Your task to perform on an android device: change the upload size in google photos Image 0: 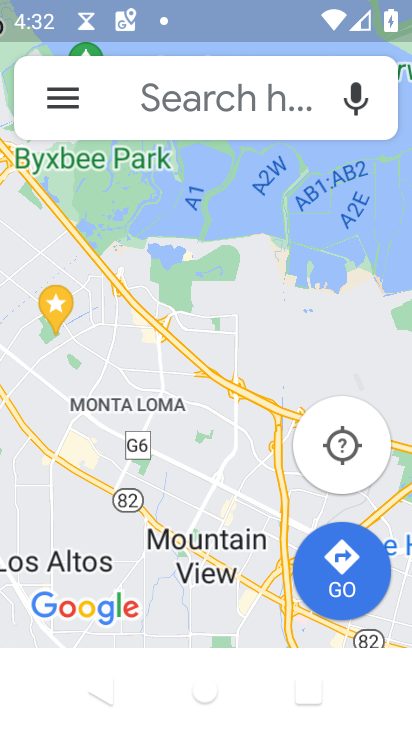
Step 0: click (76, 88)
Your task to perform on an android device: change the upload size in google photos Image 1: 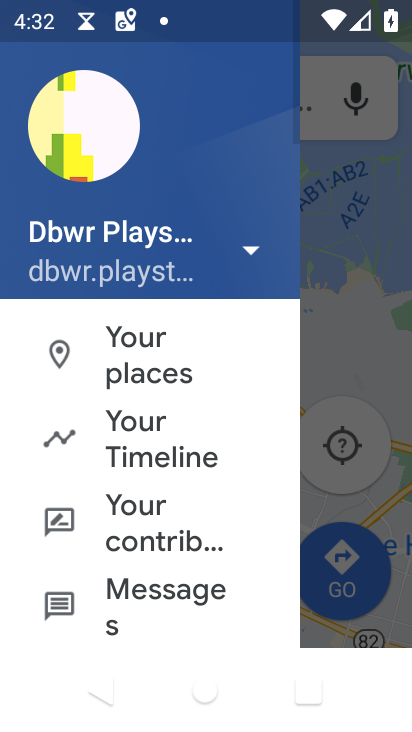
Step 1: press home button
Your task to perform on an android device: change the upload size in google photos Image 2: 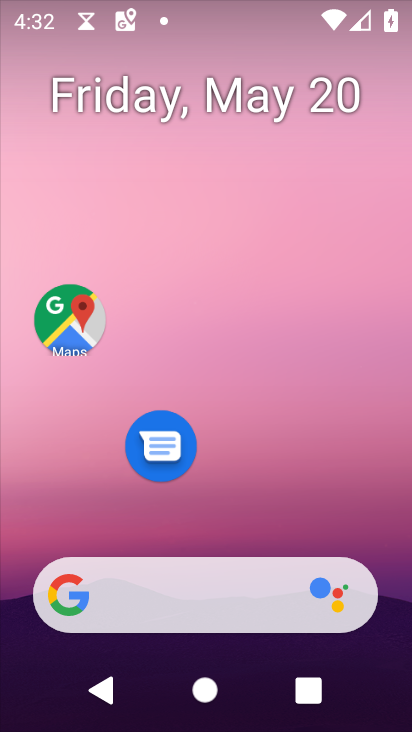
Step 2: drag from (268, 533) to (270, 8)
Your task to perform on an android device: change the upload size in google photos Image 3: 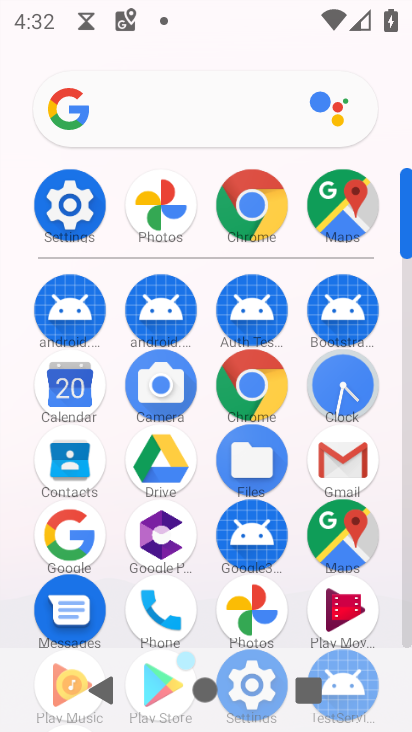
Step 3: click (251, 611)
Your task to perform on an android device: change the upload size in google photos Image 4: 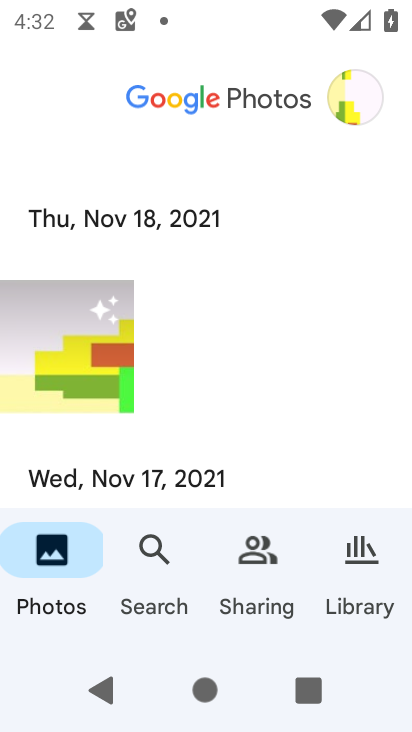
Step 4: click (361, 80)
Your task to perform on an android device: change the upload size in google photos Image 5: 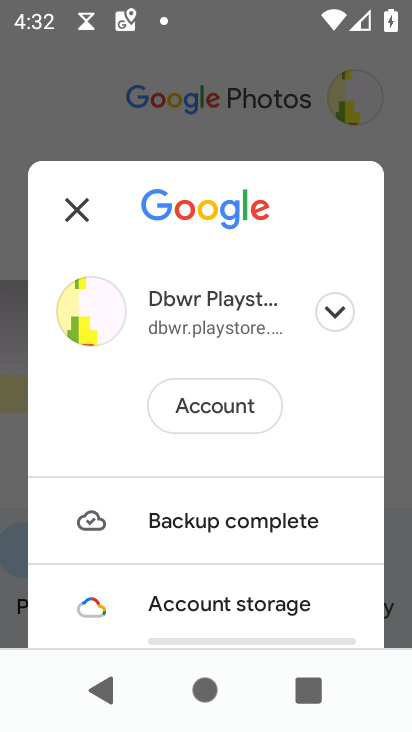
Step 5: drag from (222, 534) to (284, 82)
Your task to perform on an android device: change the upload size in google photos Image 6: 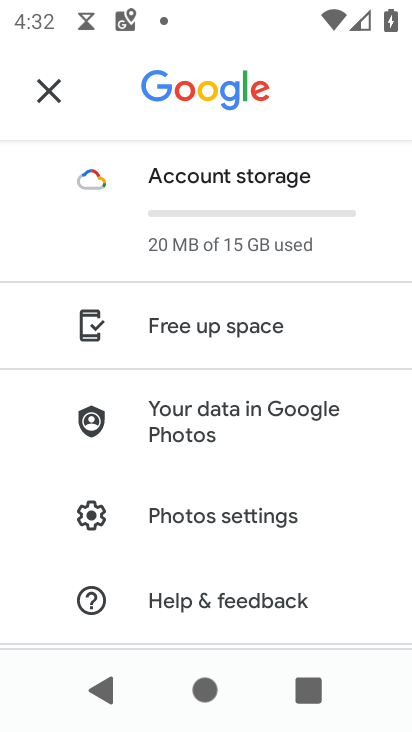
Step 6: click (258, 534)
Your task to perform on an android device: change the upload size in google photos Image 7: 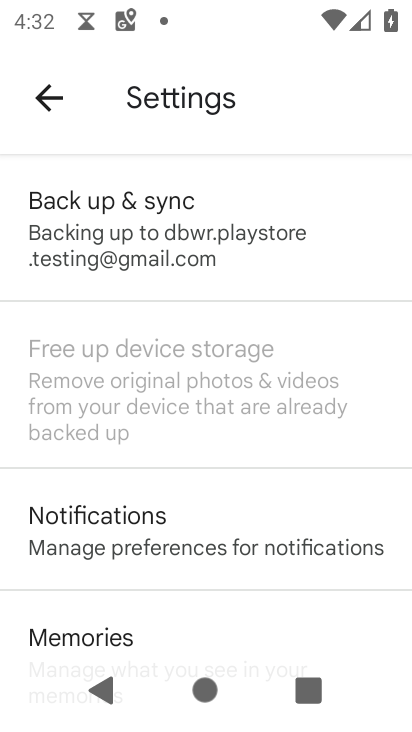
Step 7: click (128, 235)
Your task to perform on an android device: change the upload size in google photos Image 8: 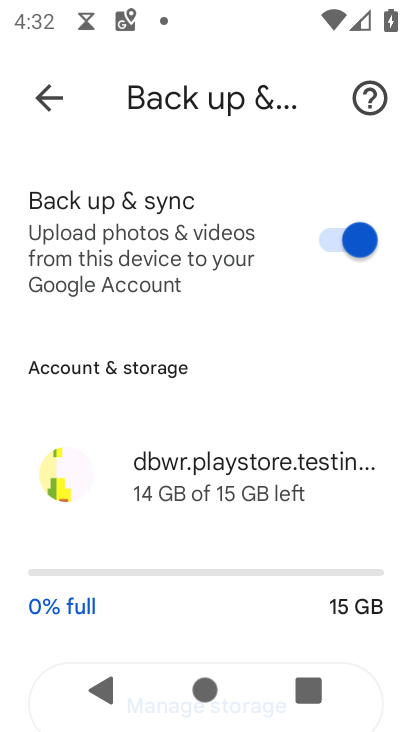
Step 8: drag from (159, 538) to (216, 316)
Your task to perform on an android device: change the upload size in google photos Image 9: 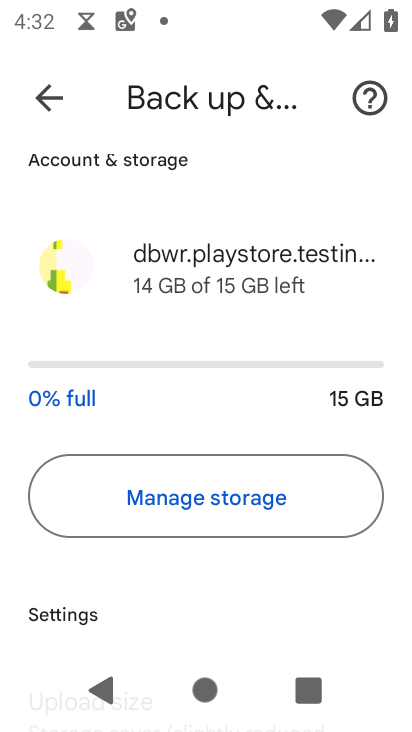
Step 9: drag from (196, 556) to (244, 215)
Your task to perform on an android device: change the upload size in google photos Image 10: 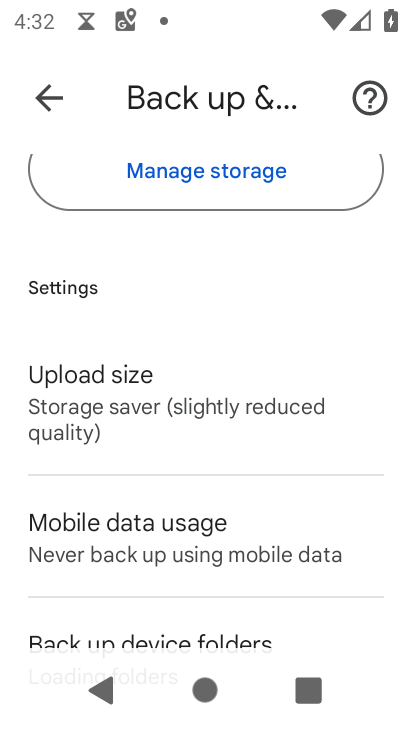
Step 10: click (224, 411)
Your task to perform on an android device: change the upload size in google photos Image 11: 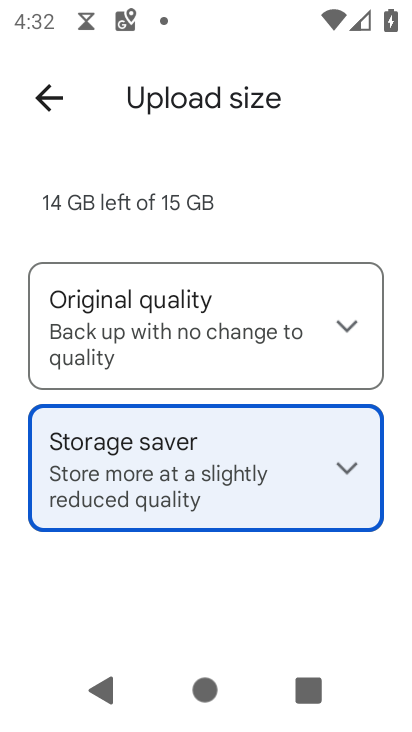
Step 11: click (207, 331)
Your task to perform on an android device: change the upload size in google photos Image 12: 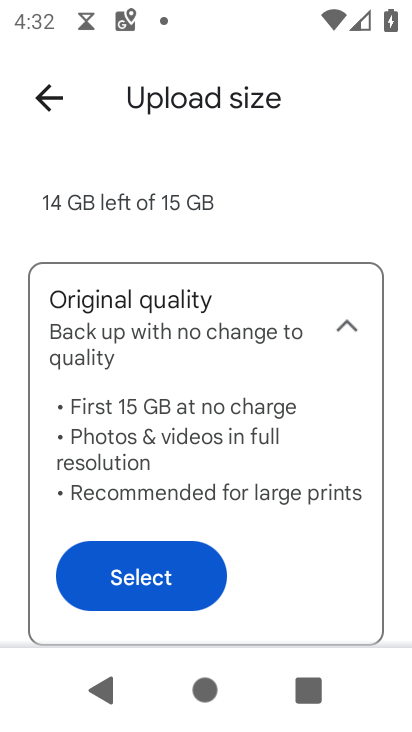
Step 12: click (143, 572)
Your task to perform on an android device: change the upload size in google photos Image 13: 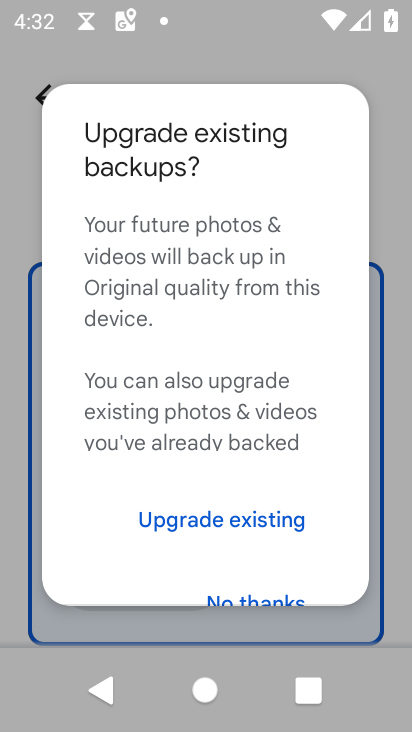
Step 13: drag from (189, 547) to (206, 453)
Your task to perform on an android device: change the upload size in google photos Image 14: 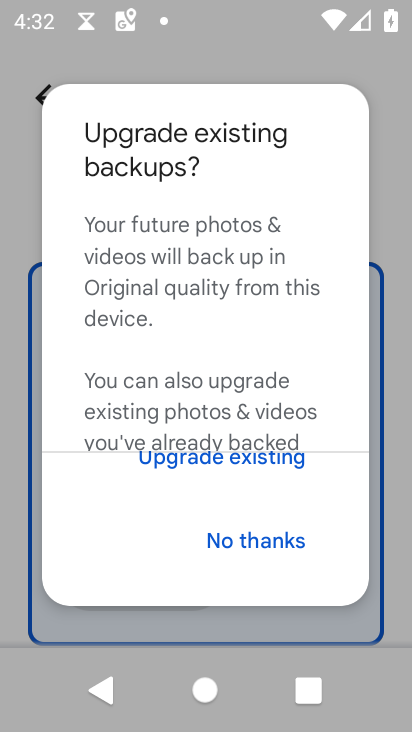
Step 14: click (258, 558)
Your task to perform on an android device: change the upload size in google photos Image 15: 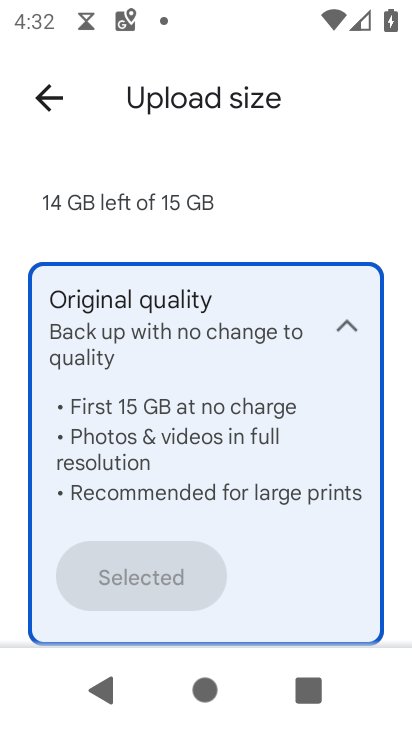
Step 15: click (349, 322)
Your task to perform on an android device: change the upload size in google photos Image 16: 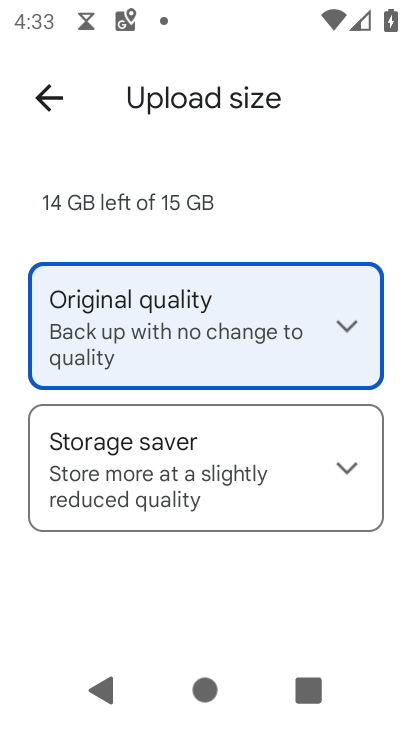
Step 16: task complete